Your task to perform on an android device: Search for lg ultragear on costco, select the first entry, add it to the cart, then select checkout. Image 0: 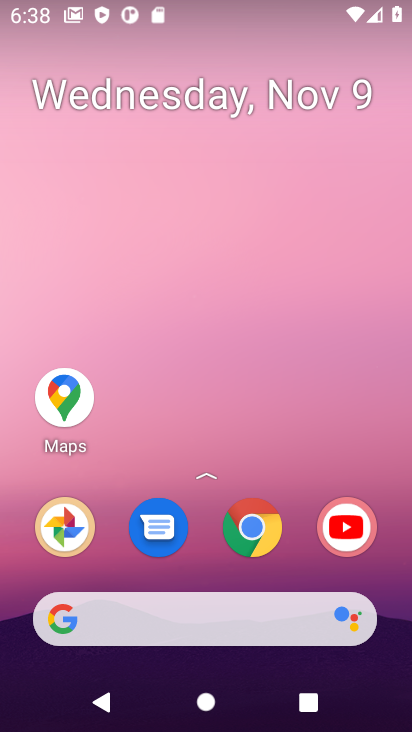
Step 0: click (262, 534)
Your task to perform on an android device: Search for lg ultragear on costco, select the first entry, add it to the cart, then select checkout. Image 1: 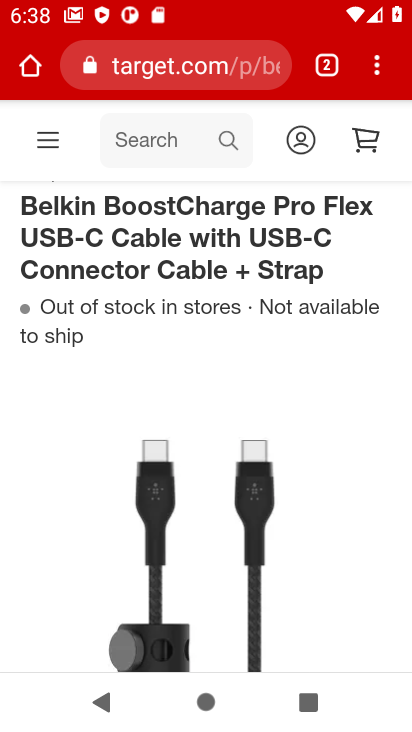
Step 1: click (152, 74)
Your task to perform on an android device: Search for lg ultragear on costco, select the first entry, add it to the cart, then select checkout. Image 2: 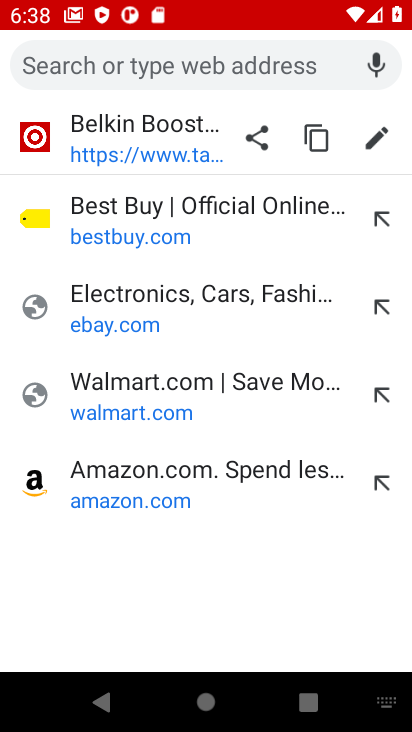
Step 2: type "costco.com"
Your task to perform on an android device: Search for lg ultragear on costco, select the first entry, add it to the cart, then select checkout. Image 3: 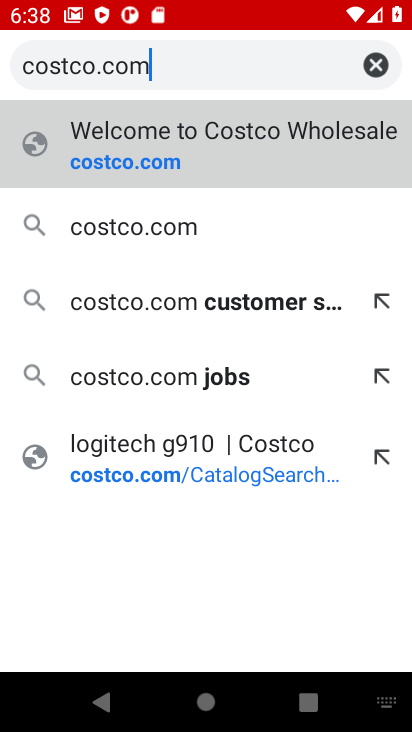
Step 3: click (141, 152)
Your task to perform on an android device: Search for lg ultragear on costco, select the first entry, add it to the cart, then select checkout. Image 4: 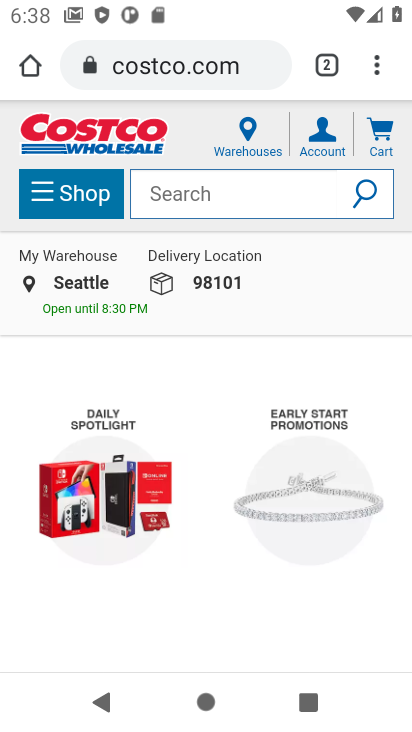
Step 4: click (183, 198)
Your task to perform on an android device: Search for lg ultragear on costco, select the first entry, add it to the cart, then select checkout. Image 5: 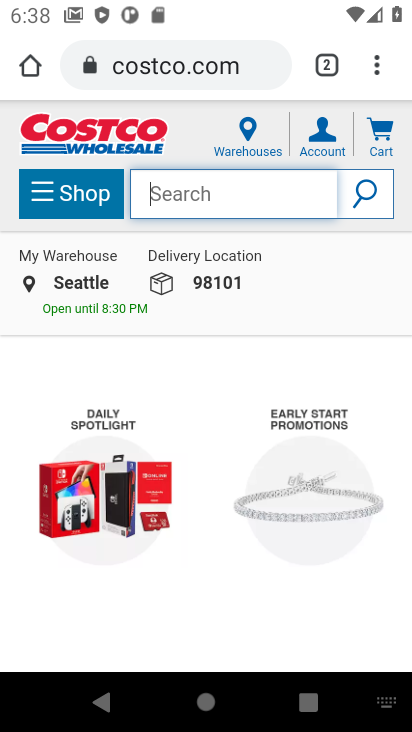
Step 5: type "lg ultragear"
Your task to perform on an android device: Search for lg ultragear on costco, select the first entry, add it to the cart, then select checkout. Image 6: 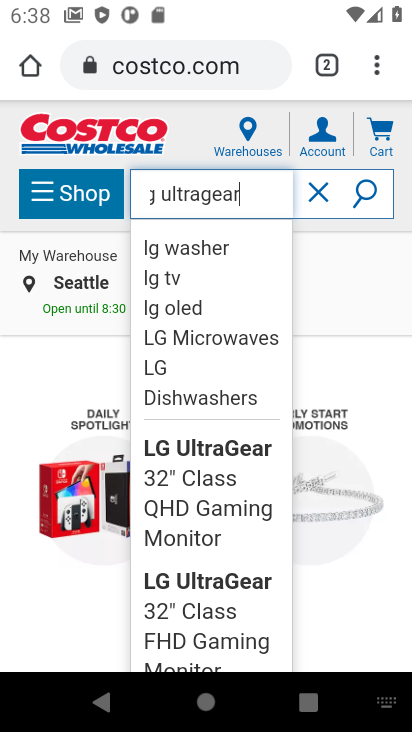
Step 6: click (358, 199)
Your task to perform on an android device: Search for lg ultragear on costco, select the first entry, add it to the cart, then select checkout. Image 7: 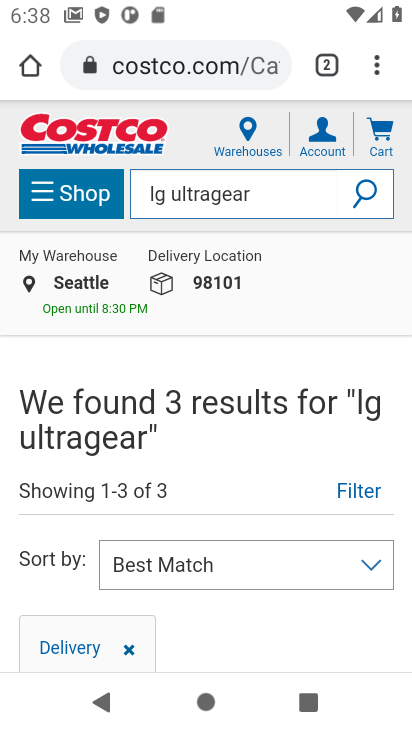
Step 7: drag from (270, 492) to (258, 229)
Your task to perform on an android device: Search for lg ultragear on costco, select the first entry, add it to the cart, then select checkout. Image 8: 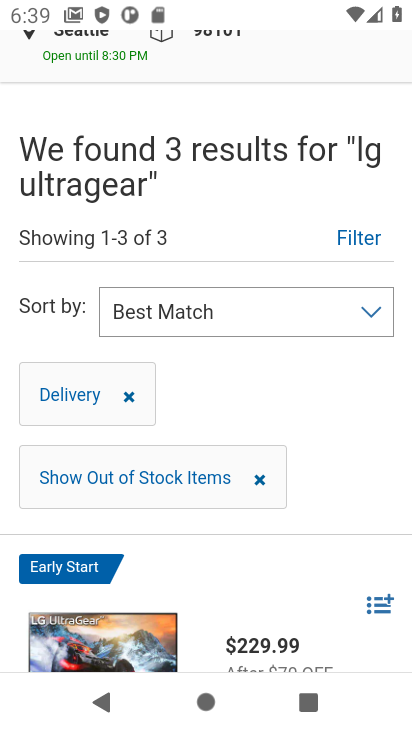
Step 8: drag from (229, 489) to (227, 223)
Your task to perform on an android device: Search for lg ultragear on costco, select the first entry, add it to the cart, then select checkout. Image 9: 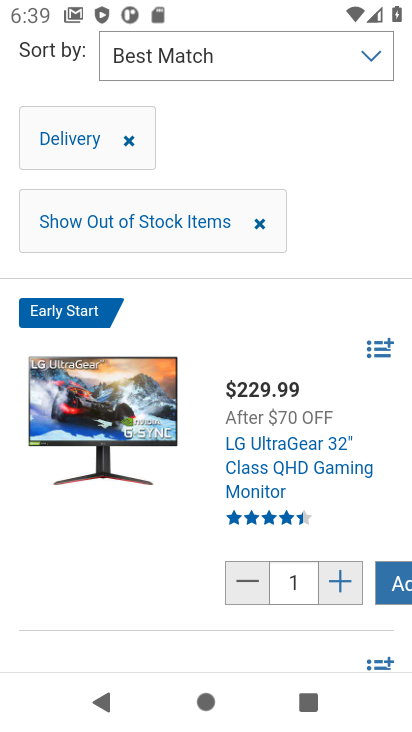
Step 9: click (398, 591)
Your task to perform on an android device: Search for lg ultragear on costco, select the first entry, add it to the cart, then select checkout. Image 10: 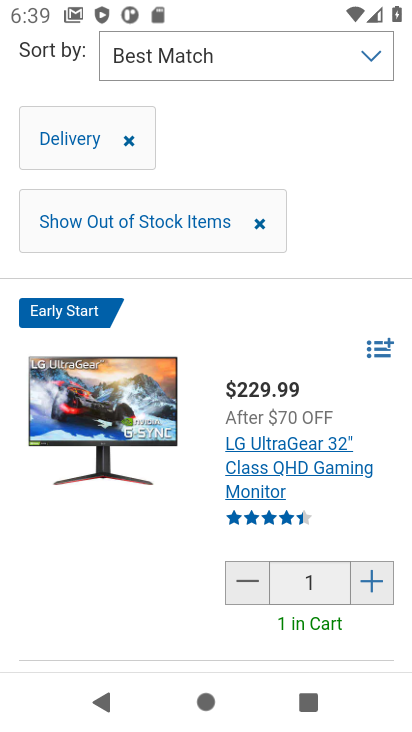
Step 10: drag from (319, 256) to (275, 618)
Your task to perform on an android device: Search for lg ultragear on costco, select the first entry, add it to the cart, then select checkout. Image 11: 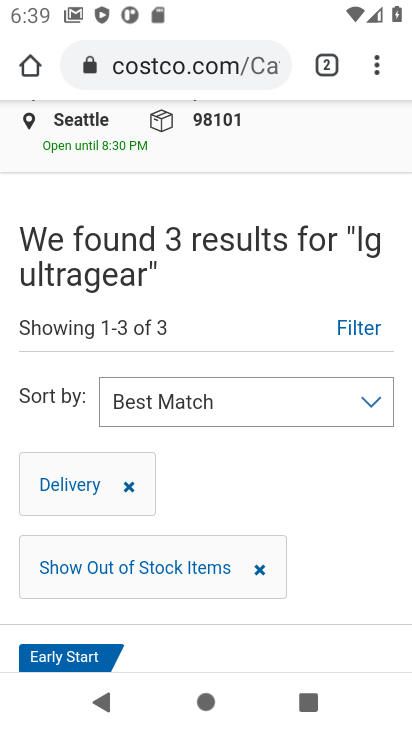
Step 11: drag from (332, 208) to (347, 498)
Your task to perform on an android device: Search for lg ultragear on costco, select the first entry, add it to the cart, then select checkout. Image 12: 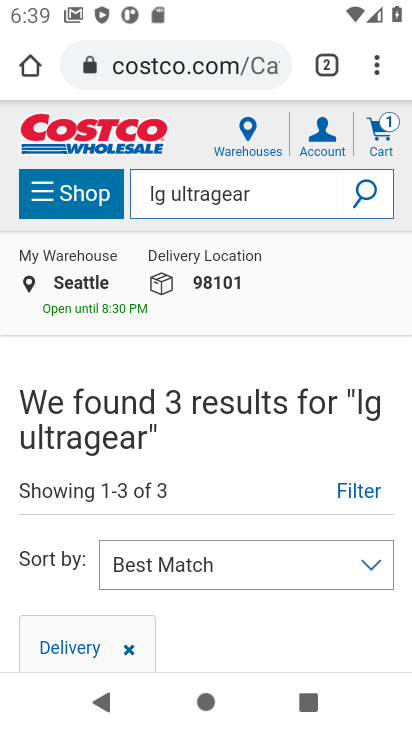
Step 12: click (381, 138)
Your task to perform on an android device: Search for lg ultragear on costco, select the first entry, add it to the cart, then select checkout. Image 13: 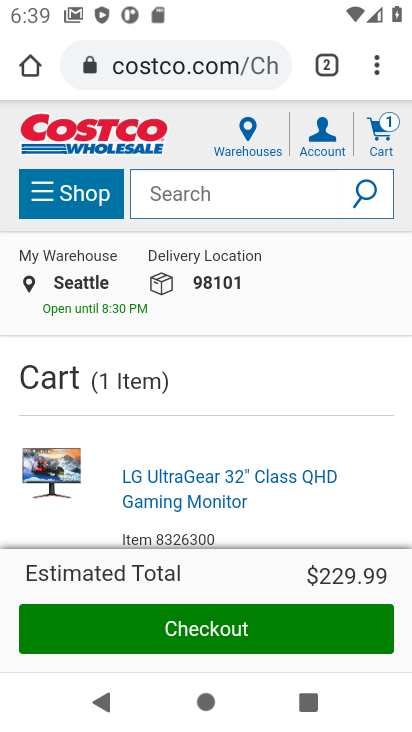
Step 13: click (219, 629)
Your task to perform on an android device: Search for lg ultragear on costco, select the first entry, add it to the cart, then select checkout. Image 14: 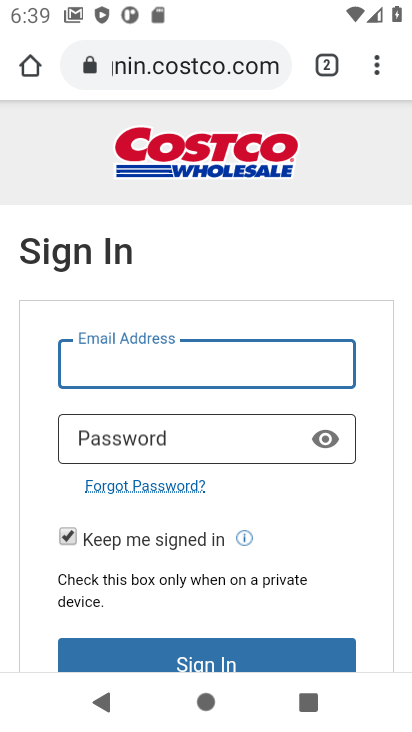
Step 14: task complete